Your task to perform on an android device: turn on showing notifications on the lock screen Image 0: 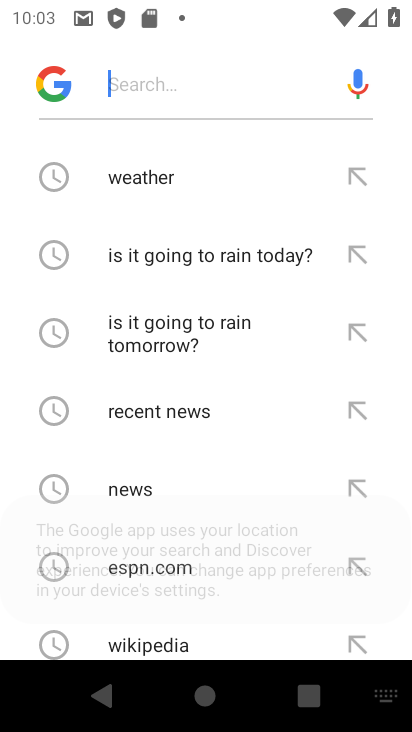
Step 0: press home button
Your task to perform on an android device: turn on showing notifications on the lock screen Image 1: 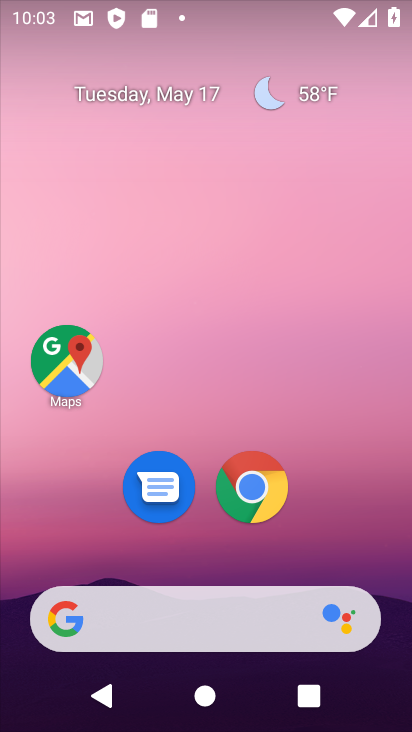
Step 1: drag from (223, 719) to (213, 181)
Your task to perform on an android device: turn on showing notifications on the lock screen Image 2: 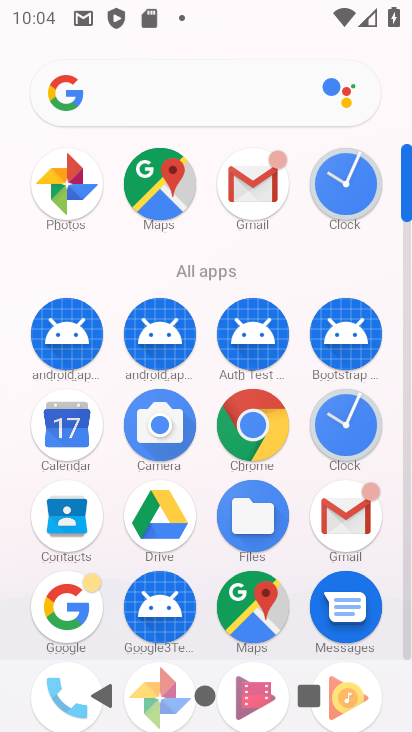
Step 2: drag from (208, 589) to (208, 231)
Your task to perform on an android device: turn on showing notifications on the lock screen Image 3: 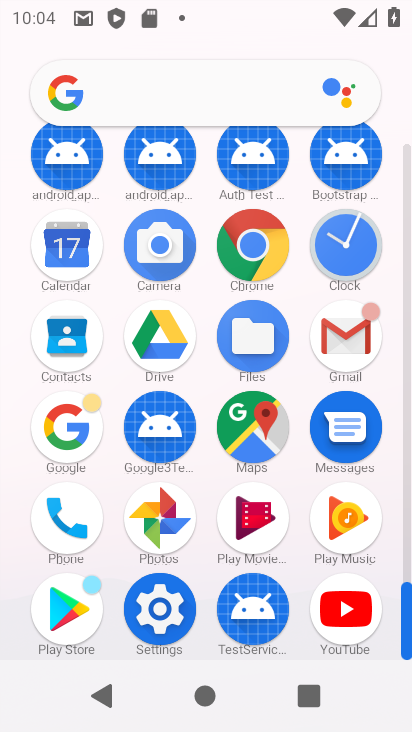
Step 3: click (153, 606)
Your task to perform on an android device: turn on showing notifications on the lock screen Image 4: 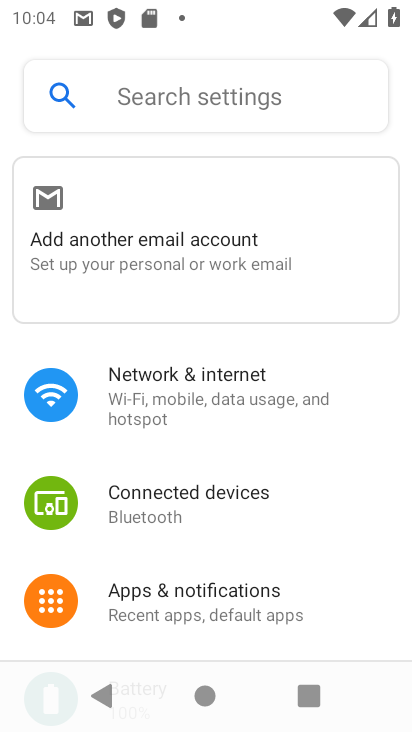
Step 4: click (174, 599)
Your task to perform on an android device: turn on showing notifications on the lock screen Image 5: 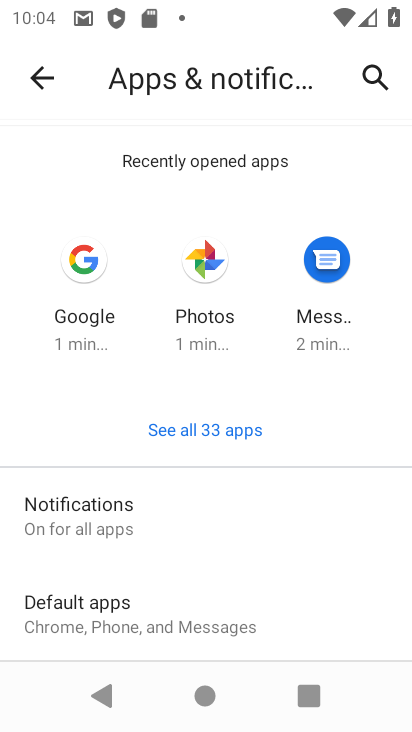
Step 5: click (90, 518)
Your task to perform on an android device: turn on showing notifications on the lock screen Image 6: 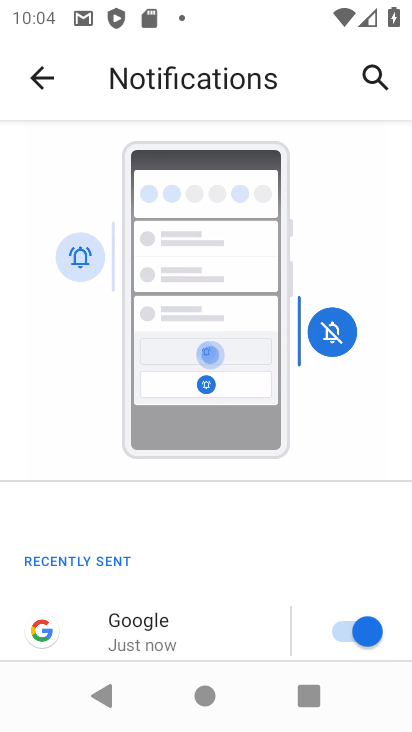
Step 6: task complete